Your task to perform on an android device: Open the map Image 0: 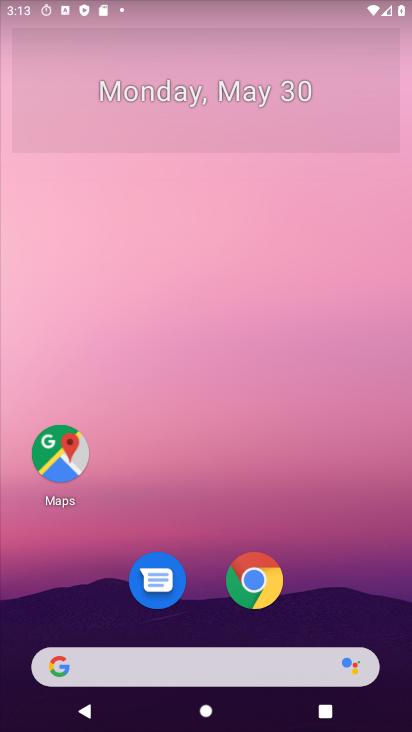
Step 0: click (57, 460)
Your task to perform on an android device: Open the map Image 1: 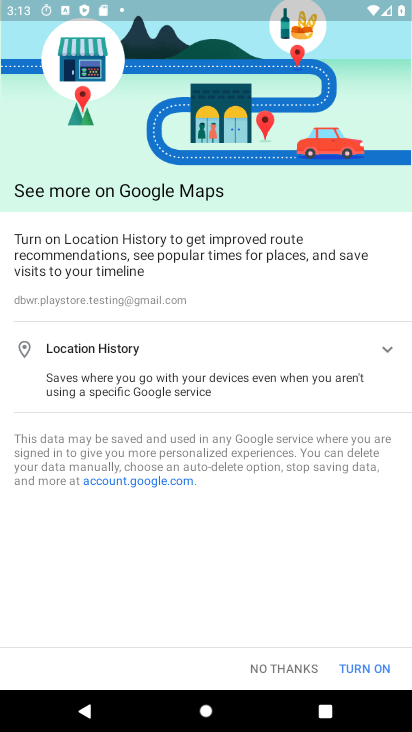
Step 1: click (295, 669)
Your task to perform on an android device: Open the map Image 2: 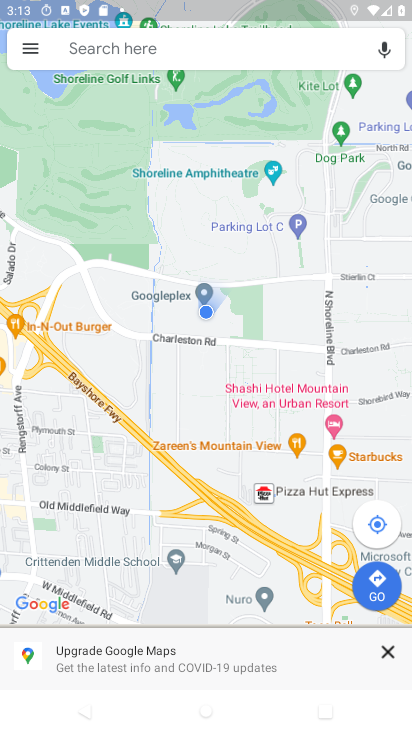
Step 2: task complete